Your task to perform on an android device: Go to Yahoo.com Image 0: 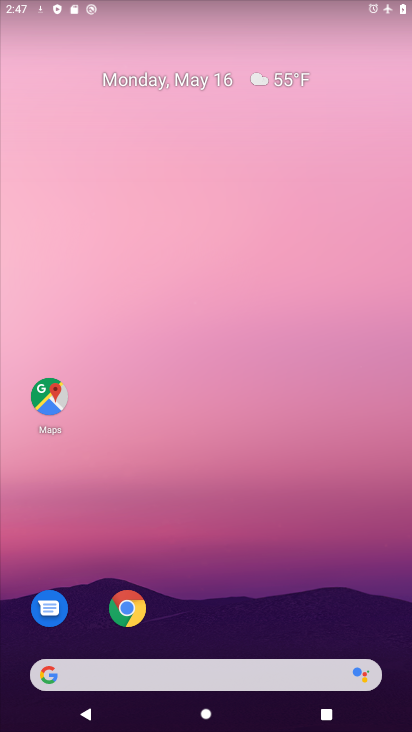
Step 0: click (131, 609)
Your task to perform on an android device: Go to Yahoo.com Image 1: 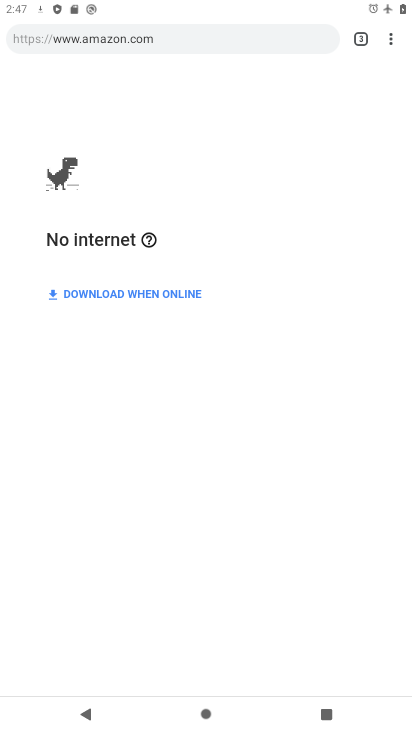
Step 1: click (368, 27)
Your task to perform on an android device: Go to Yahoo.com Image 2: 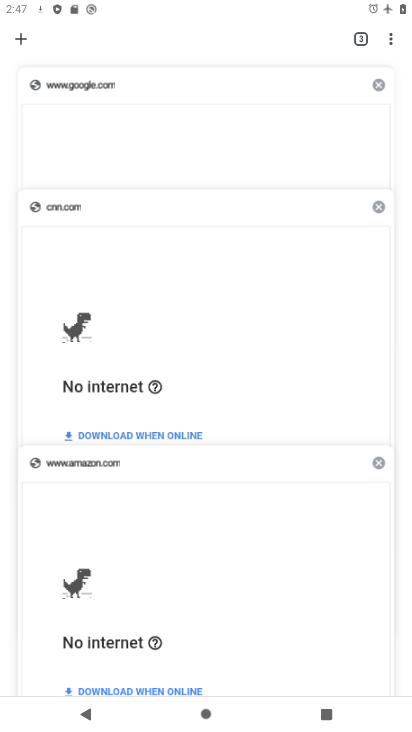
Step 2: click (15, 35)
Your task to perform on an android device: Go to Yahoo.com Image 3: 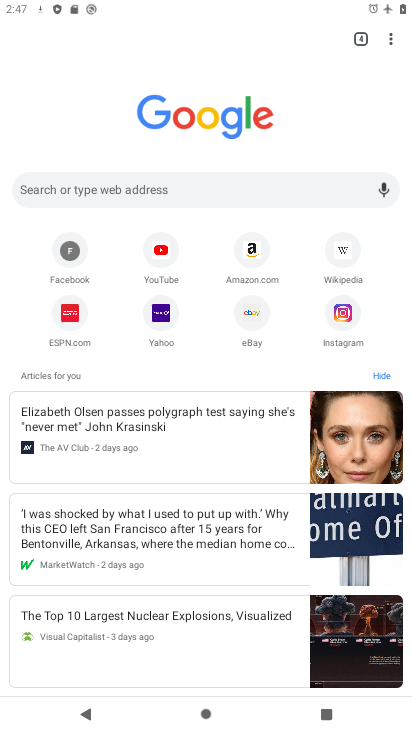
Step 3: click (155, 329)
Your task to perform on an android device: Go to Yahoo.com Image 4: 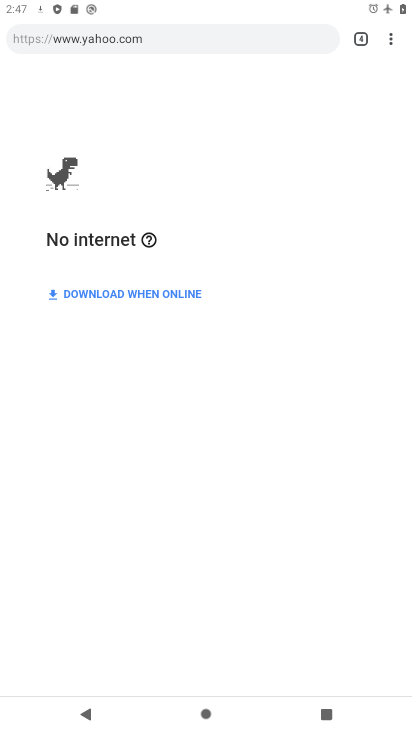
Step 4: task complete